Your task to perform on an android device: open app "ColorNote Notepad Notes" Image 0: 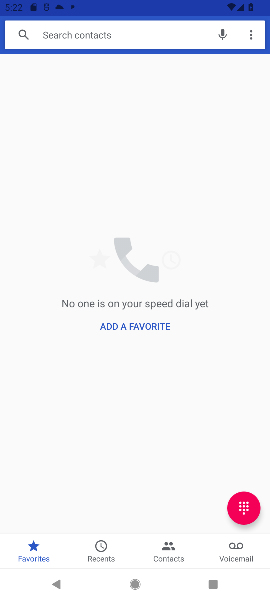
Step 0: press home button
Your task to perform on an android device: open app "ColorNote Notepad Notes" Image 1: 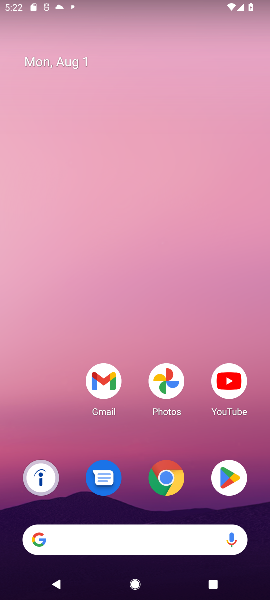
Step 1: click (236, 458)
Your task to perform on an android device: open app "ColorNote Notepad Notes" Image 2: 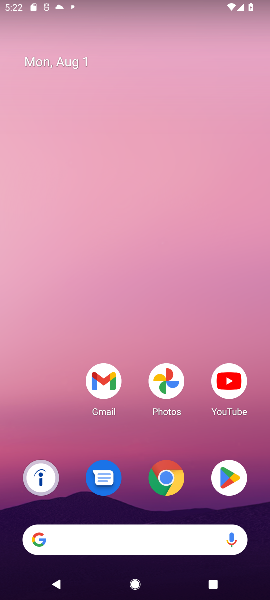
Step 2: click (228, 478)
Your task to perform on an android device: open app "ColorNote Notepad Notes" Image 3: 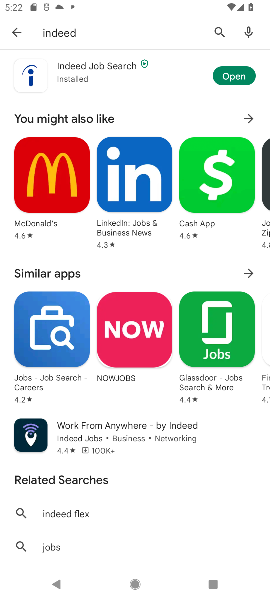
Step 3: click (218, 36)
Your task to perform on an android device: open app "ColorNote Notepad Notes" Image 4: 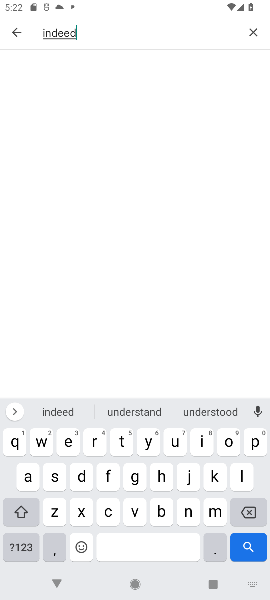
Step 4: click (253, 40)
Your task to perform on an android device: open app "ColorNote Notepad Notes" Image 5: 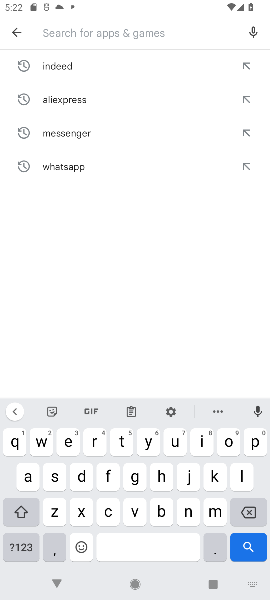
Step 5: type "colornote"
Your task to perform on an android device: open app "ColorNote Notepad Notes" Image 6: 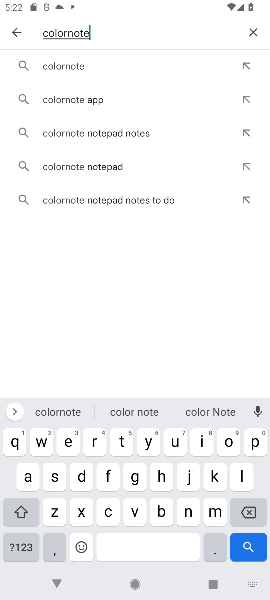
Step 6: click (83, 68)
Your task to perform on an android device: open app "ColorNote Notepad Notes" Image 7: 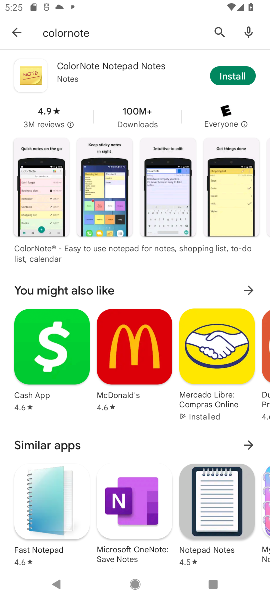
Step 7: task complete